Your task to perform on an android device: toggle notification dots Image 0: 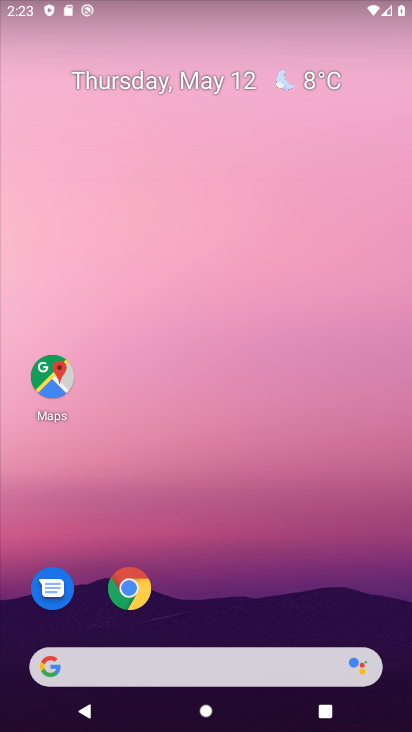
Step 0: drag from (271, 603) to (223, 36)
Your task to perform on an android device: toggle notification dots Image 1: 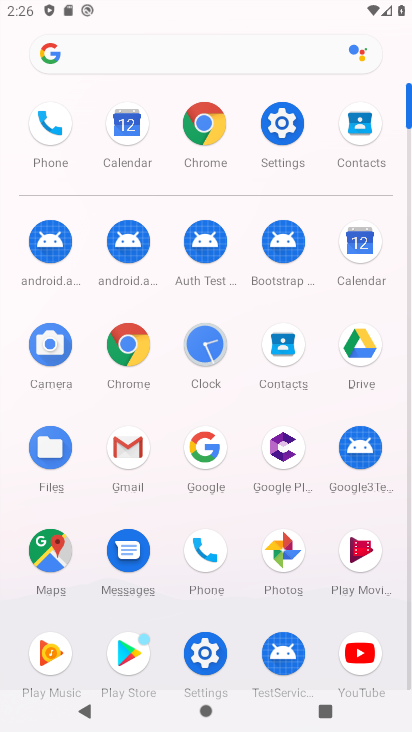
Step 1: click (205, 660)
Your task to perform on an android device: toggle notification dots Image 2: 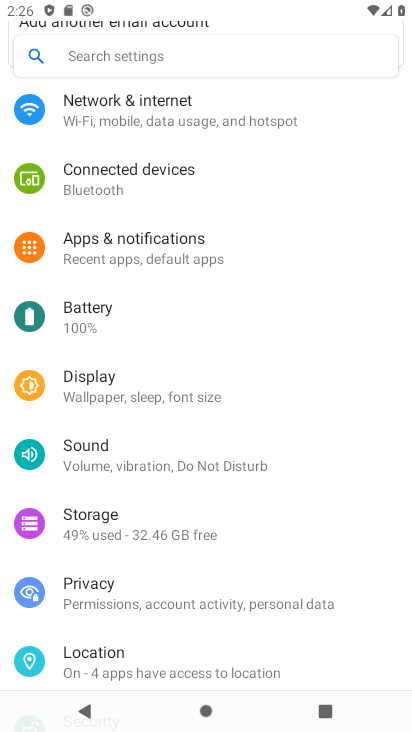
Step 2: click (215, 268)
Your task to perform on an android device: toggle notification dots Image 3: 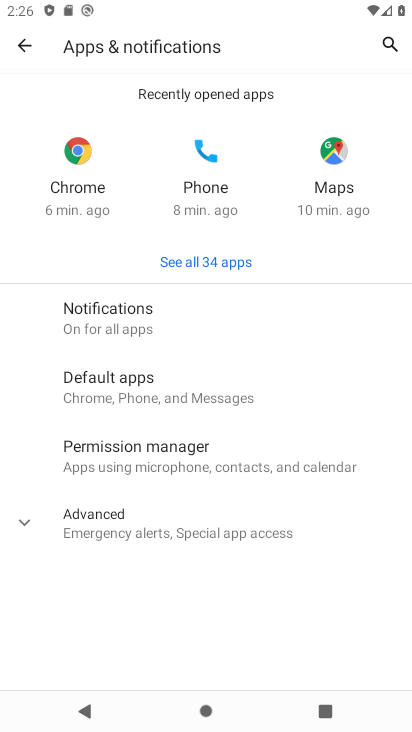
Step 3: click (143, 323)
Your task to perform on an android device: toggle notification dots Image 4: 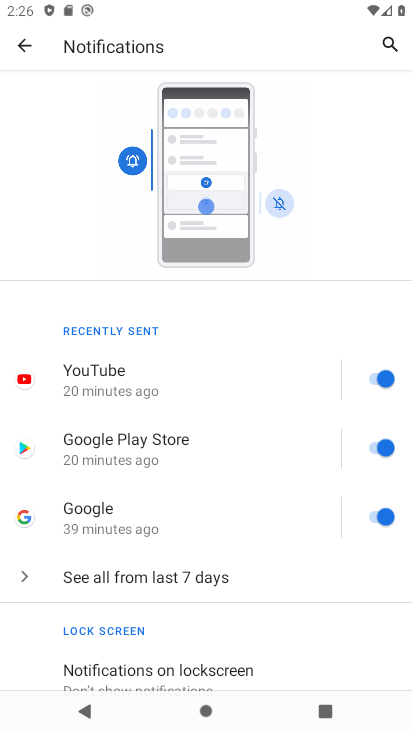
Step 4: drag from (164, 657) to (150, 233)
Your task to perform on an android device: toggle notification dots Image 5: 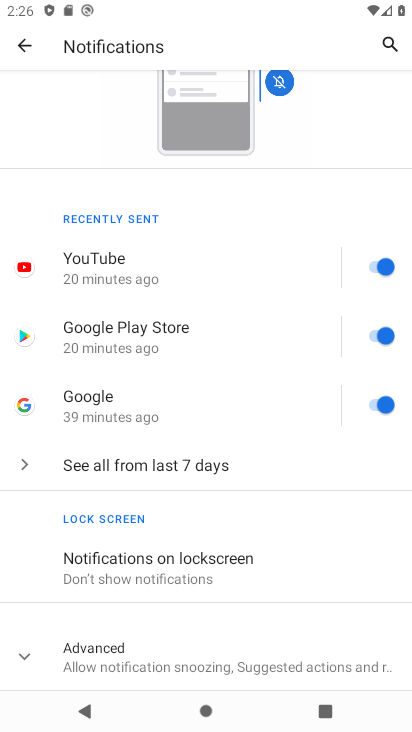
Step 5: click (285, 683)
Your task to perform on an android device: toggle notification dots Image 6: 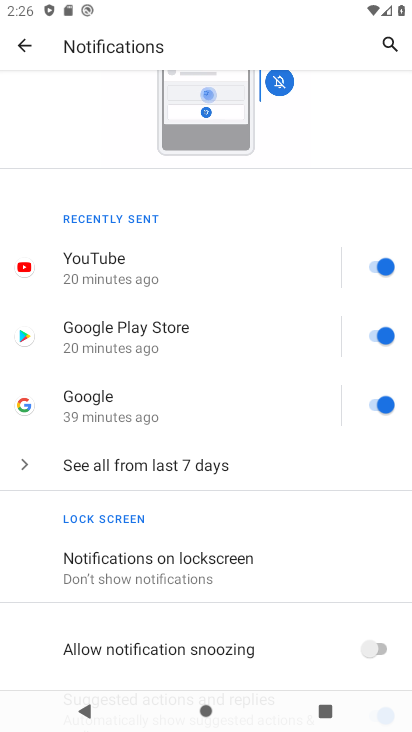
Step 6: drag from (285, 646) to (357, 233)
Your task to perform on an android device: toggle notification dots Image 7: 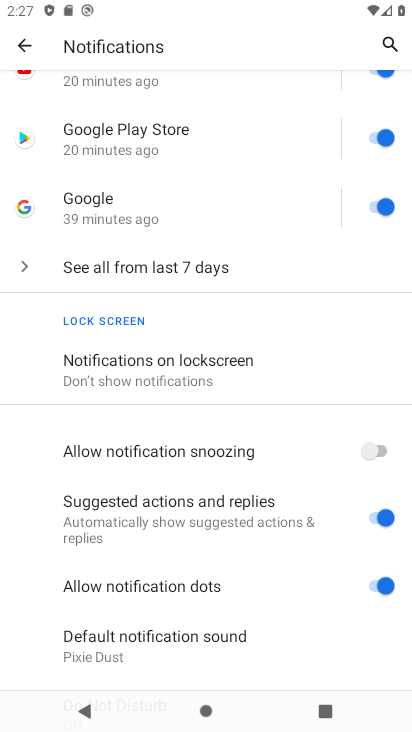
Step 7: click (355, 590)
Your task to perform on an android device: toggle notification dots Image 8: 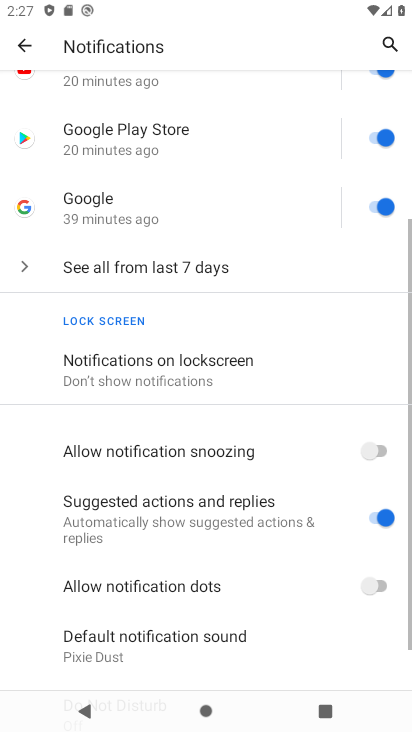
Step 8: task complete